Your task to perform on an android device: Open a new window in the chrome app Image 0: 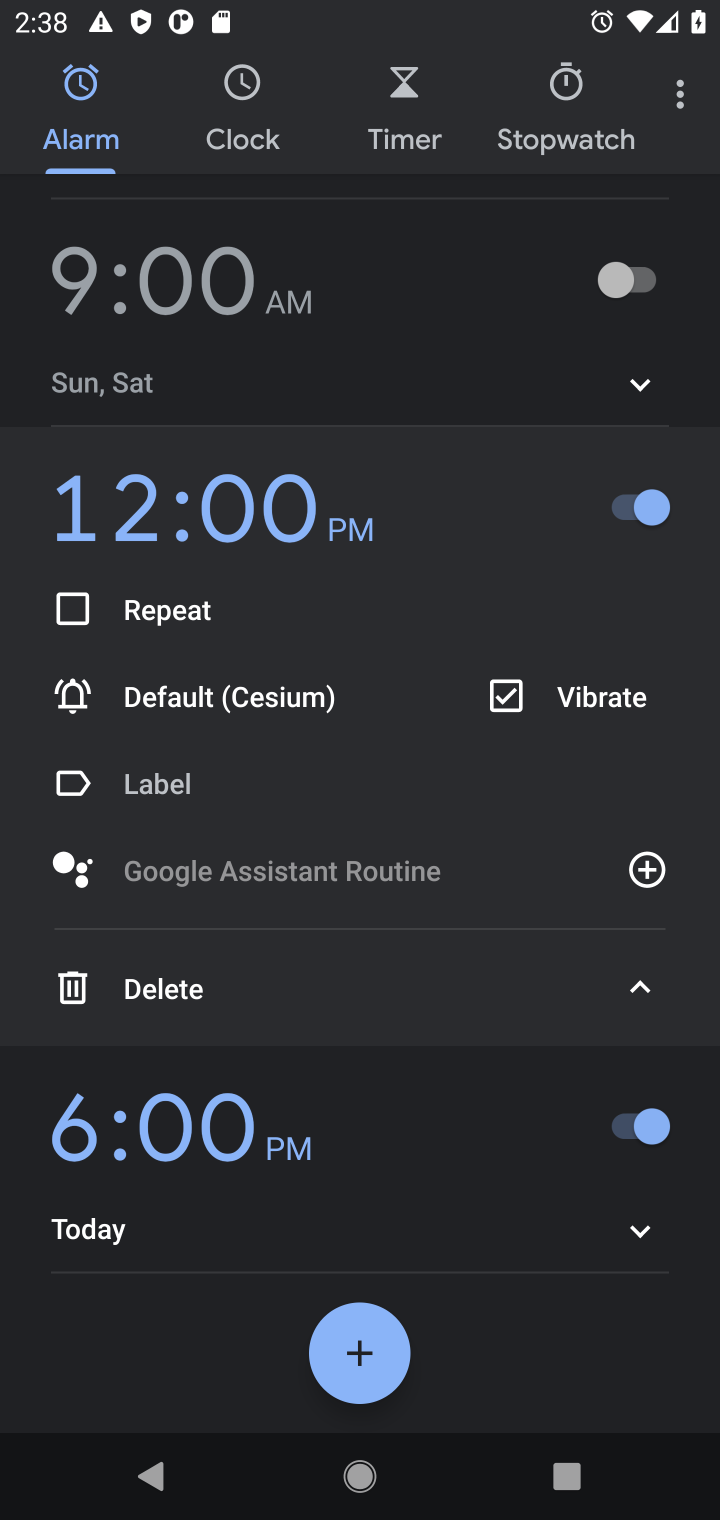
Step 0: press home button
Your task to perform on an android device: Open a new window in the chrome app Image 1: 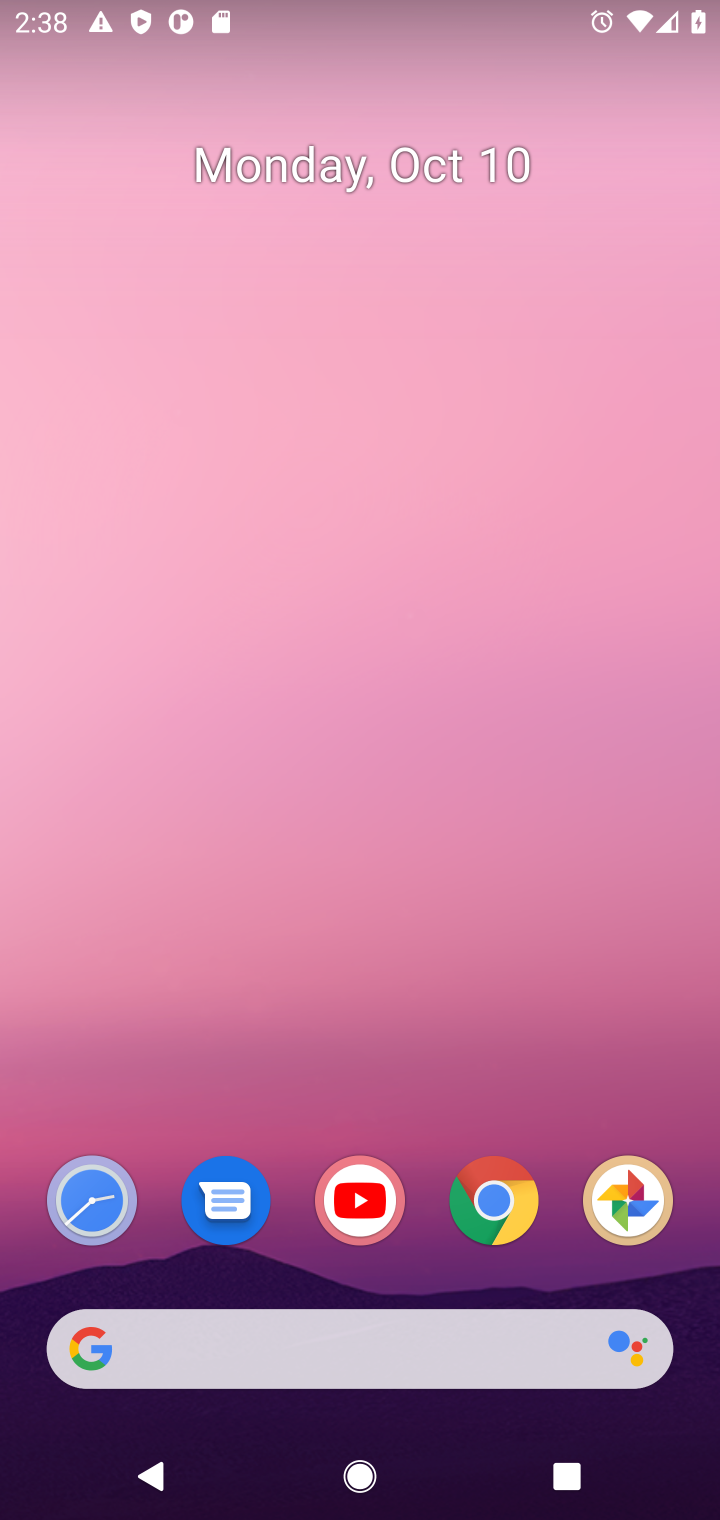
Step 1: click (494, 1212)
Your task to perform on an android device: Open a new window in the chrome app Image 2: 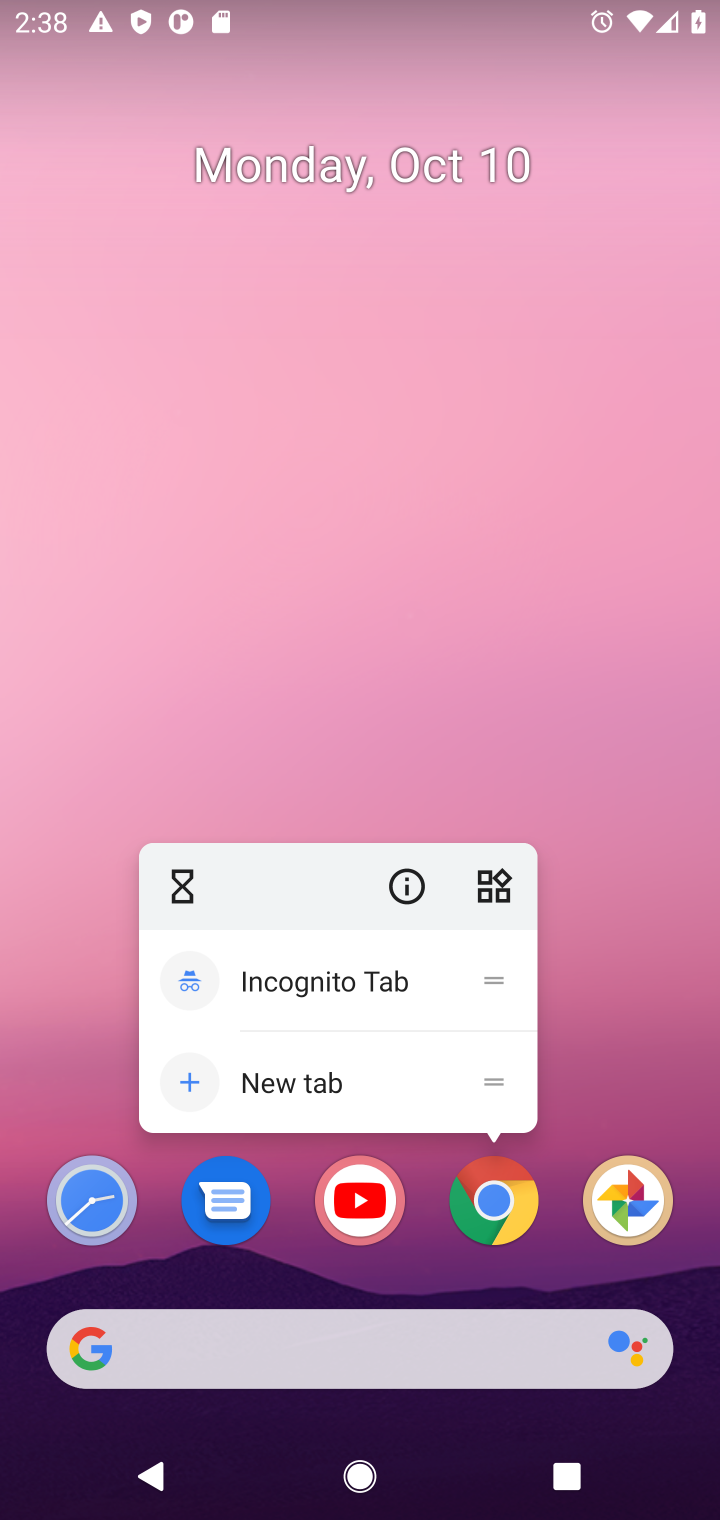
Step 2: click (497, 1218)
Your task to perform on an android device: Open a new window in the chrome app Image 3: 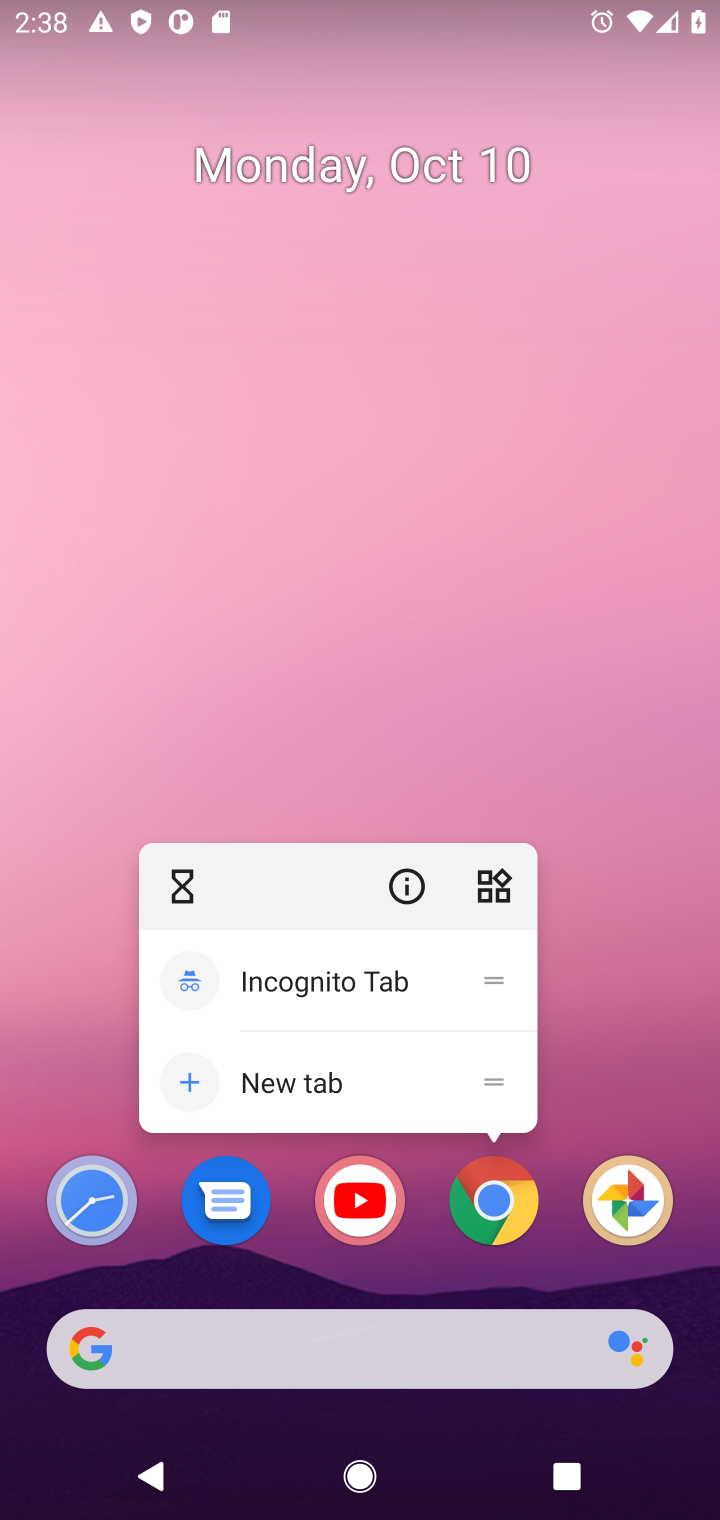
Step 3: click (604, 985)
Your task to perform on an android device: Open a new window in the chrome app Image 4: 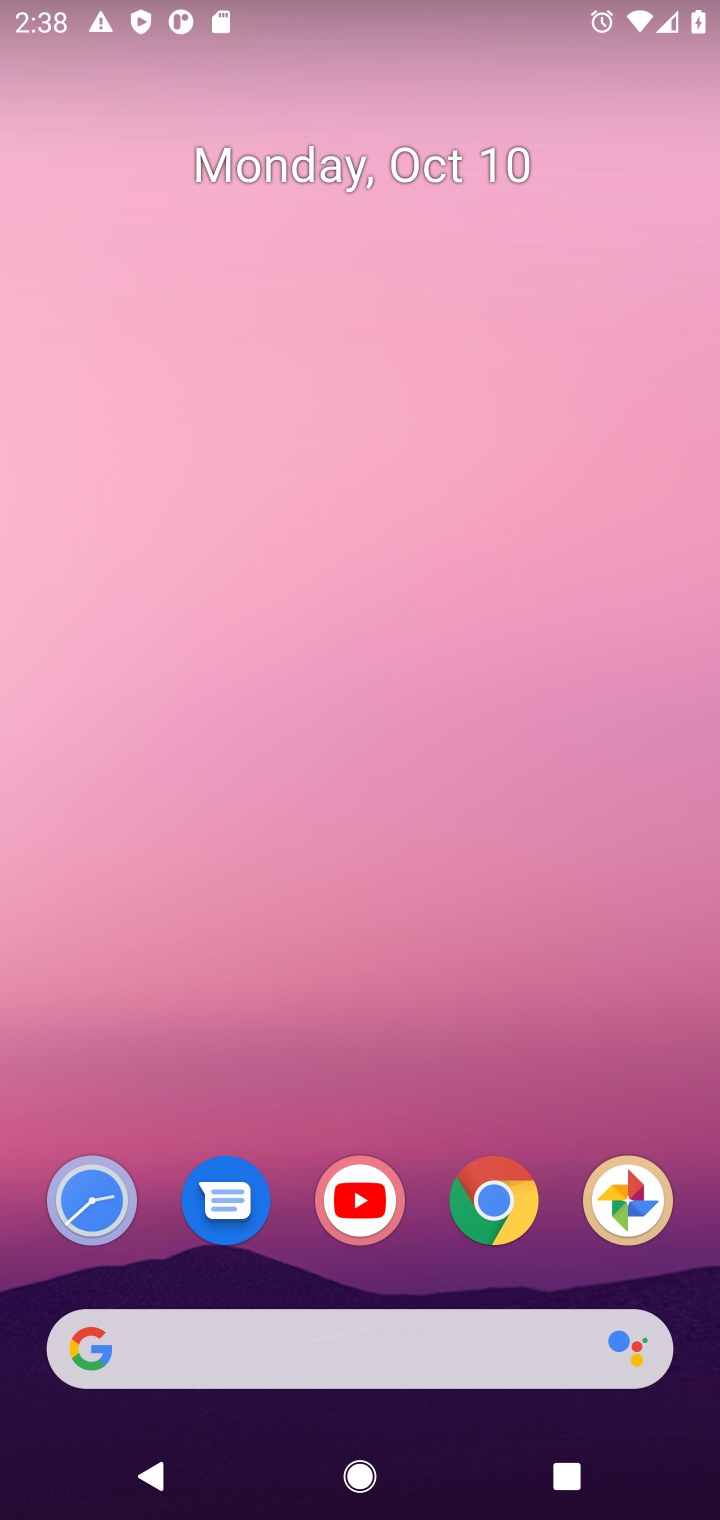
Step 4: click (500, 1221)
Your task to perform on an android device: Open a new window in the chrome app Image 5: 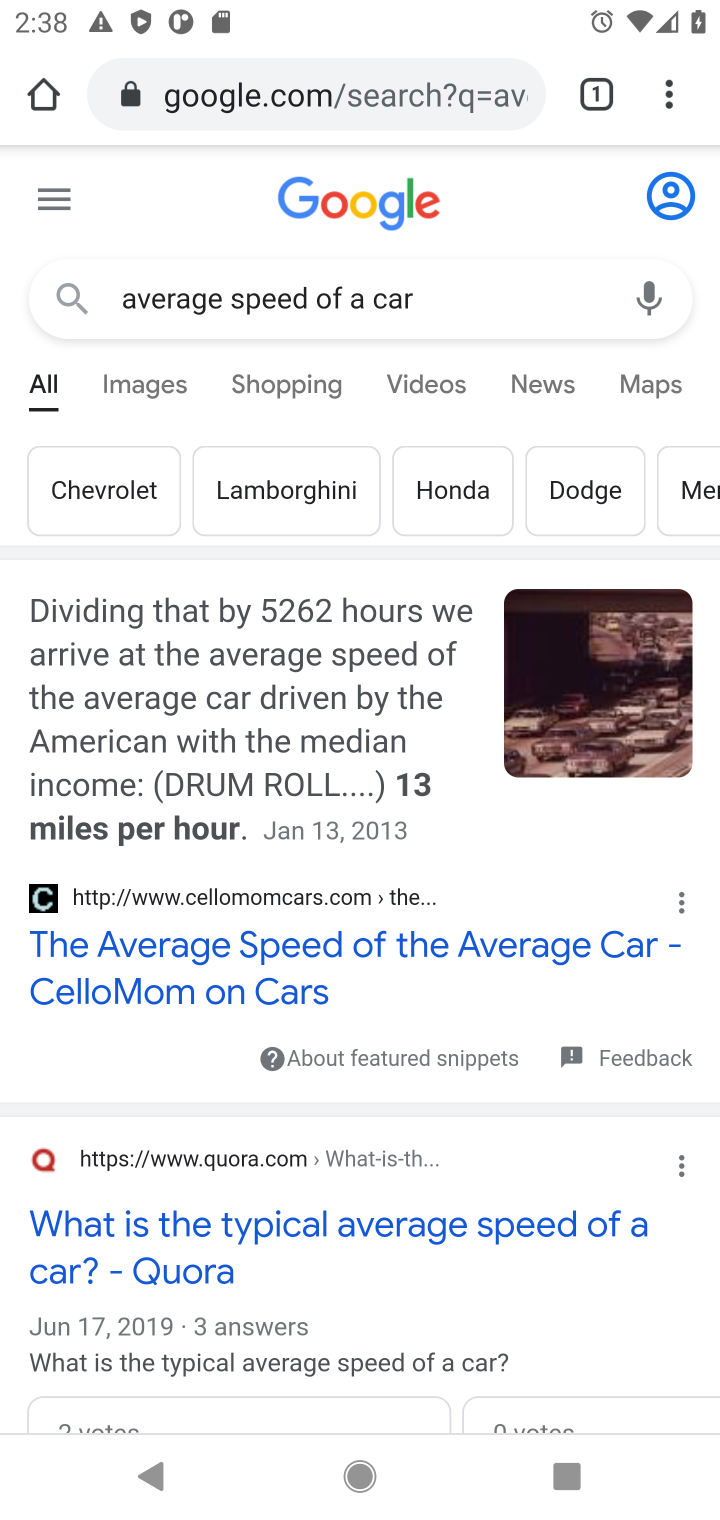
Step 5: click (665, 99)
Your task to perform on an android device: Open a new window in the chrome app Image 6: 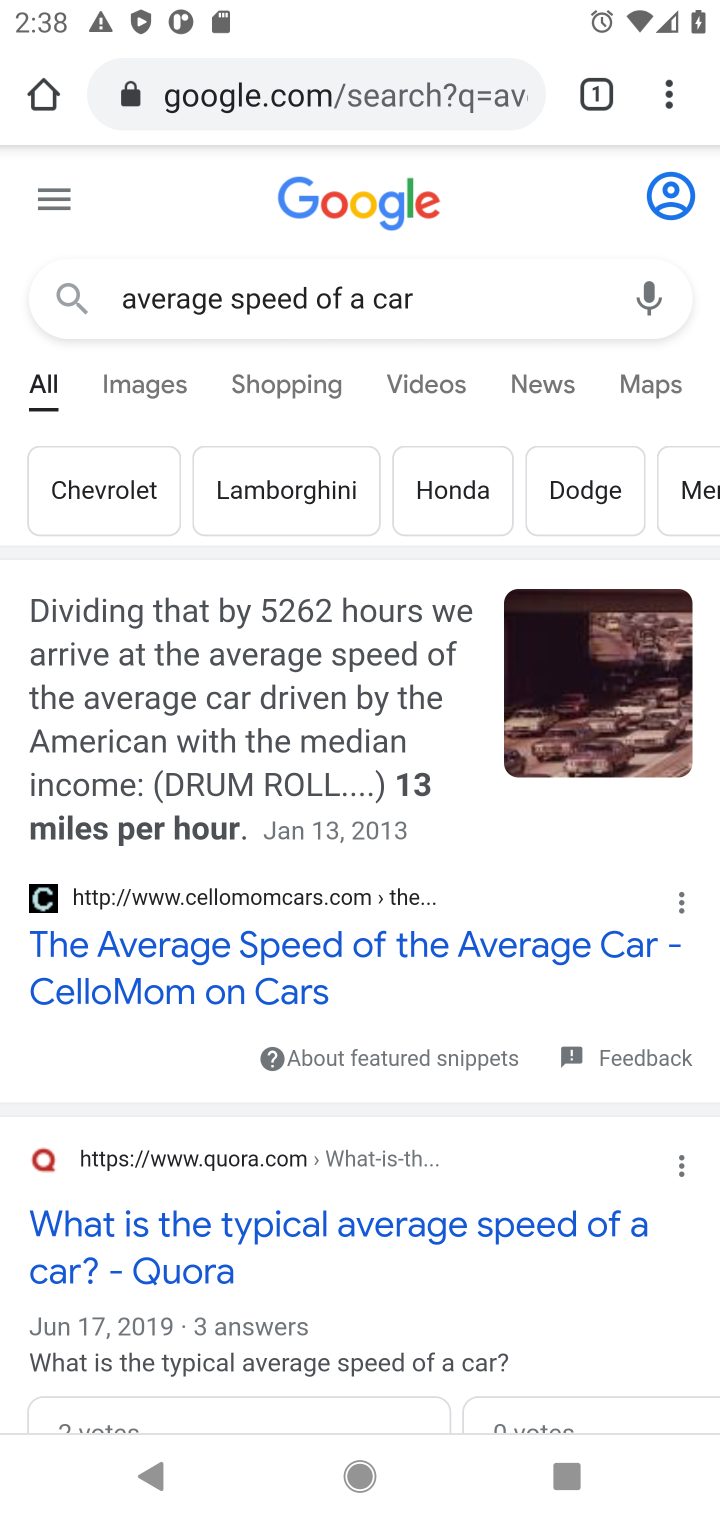
Step 6: click (665, 99)
Your task to perform on an android device: Open a new window in the chrome app Image 7: 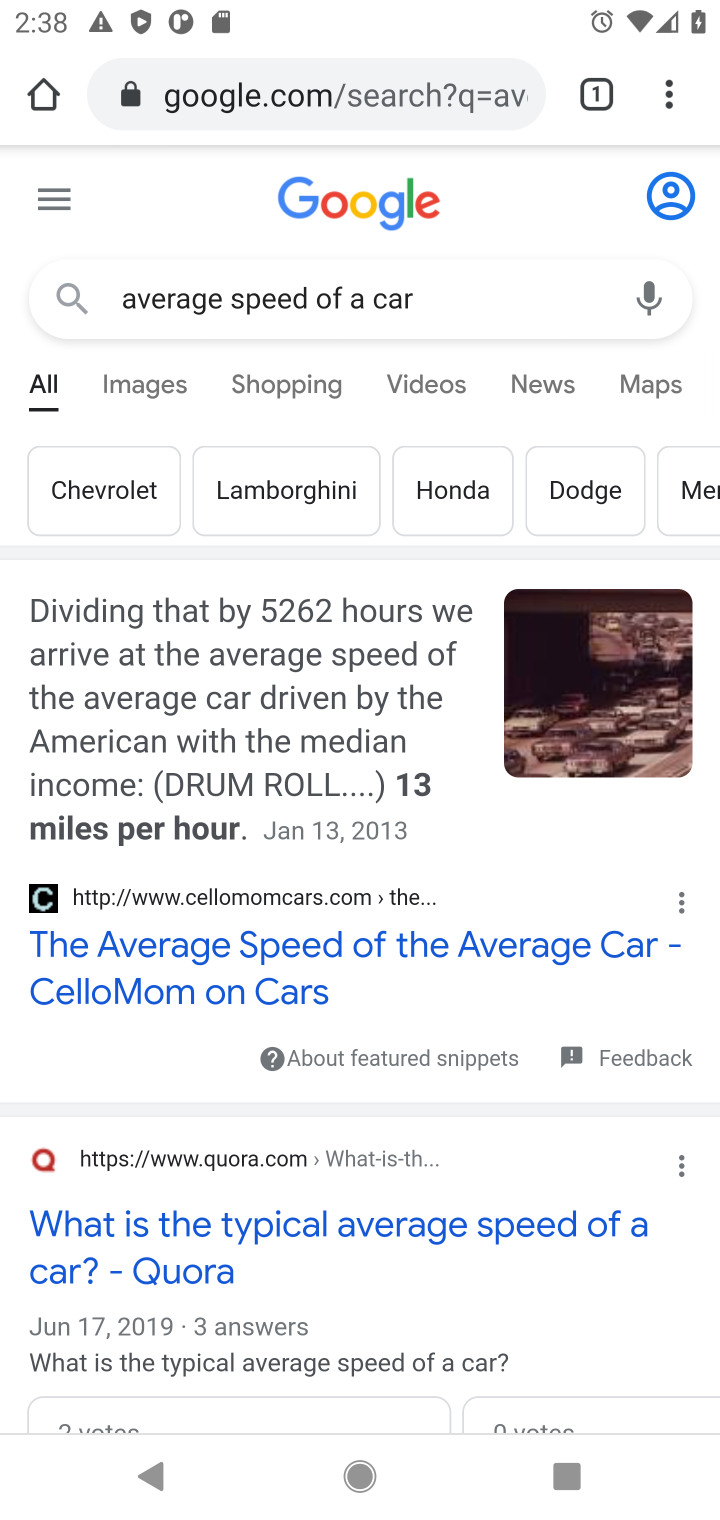
Step 7: click (665, 99)
Your task to perform on an android device: Open a new window in the chrome app Image 8: 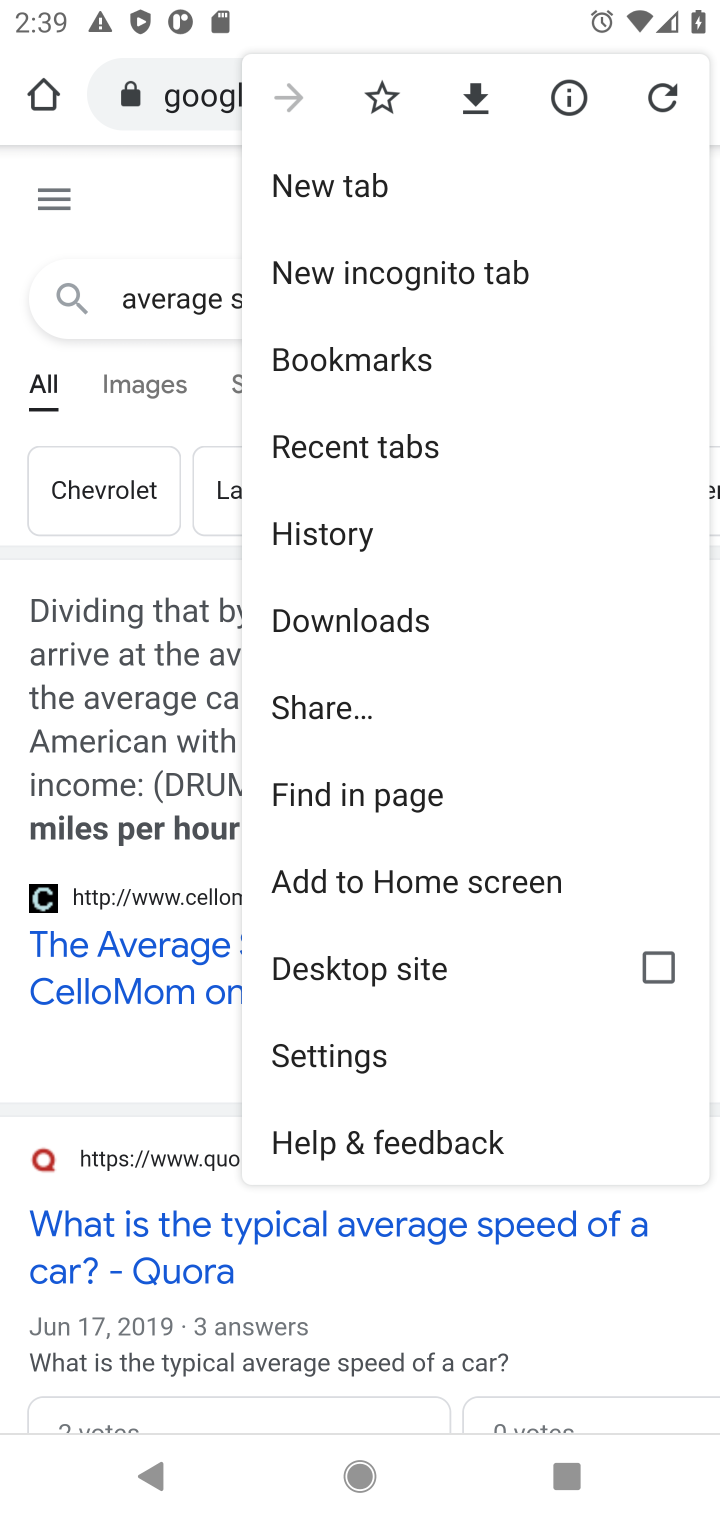
Step 8: click (335, 187)
Your task to perform on an android device: Open a new window in the chrome app Image 9: 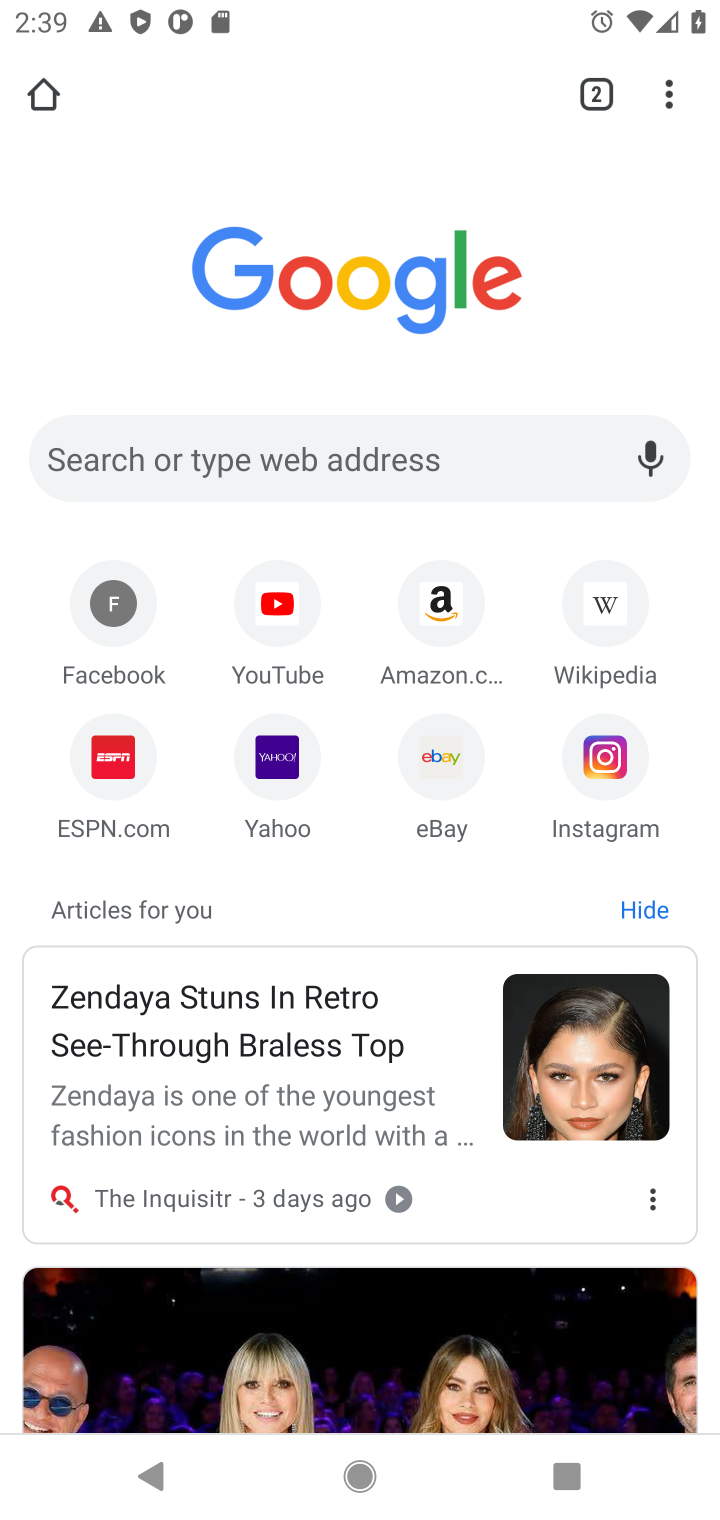
Step 9: task complete